Your task to perform on an android device: change the upload size in google photos Image 0: 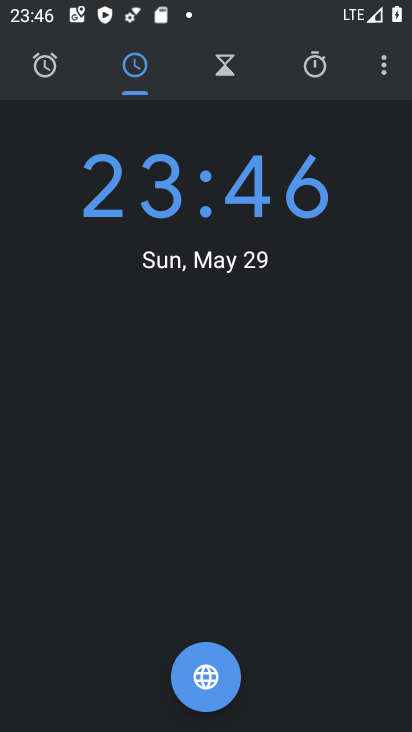
Step 0: press home button
Your task to perform on an android device: change the upload size in google photos Image 1: 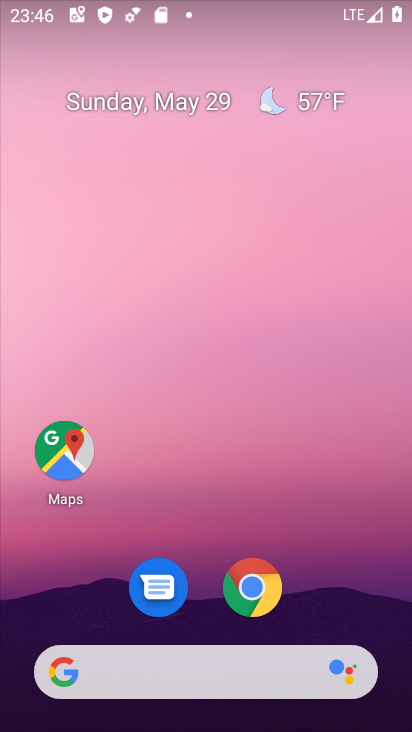
Step 1: drag from (342, 603) to (198, 174)
Your task to perform on an android device: change the upload size in google photos Image 2: 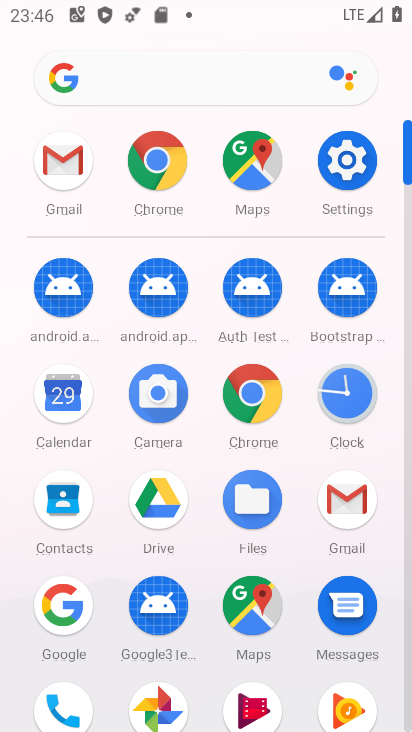
Step 2: click (160, 713)
Your task to perform on an android device: change the upload size in google photos Image 3: 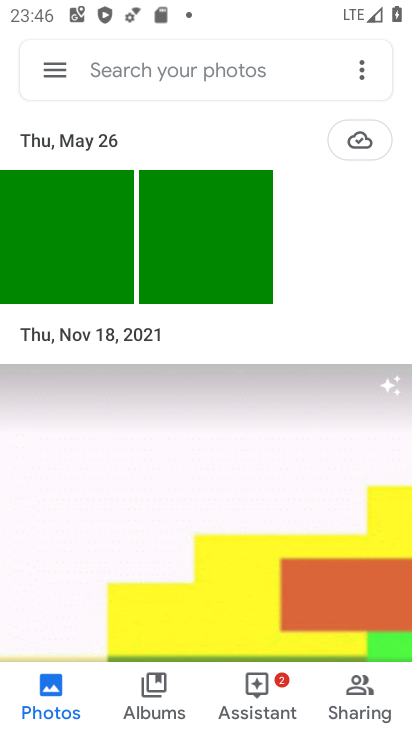
Step 3: click (52, 70)
Your task to perform on an android device: change the upload size in google photos Image 4: 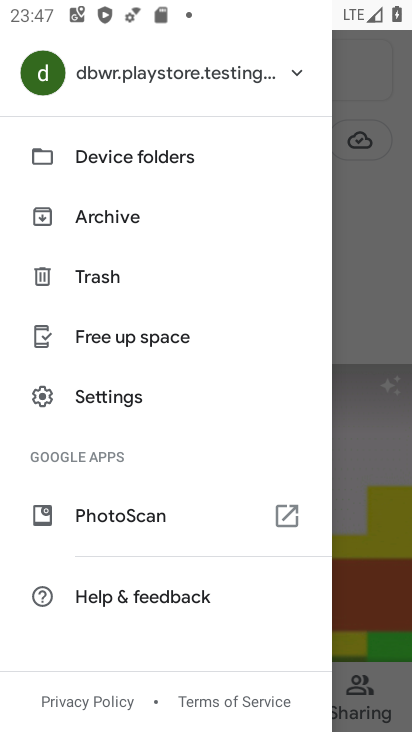
Step 4: click (102, 404)
Your task to perform on an android device: change the upload size in google photos Image 5: 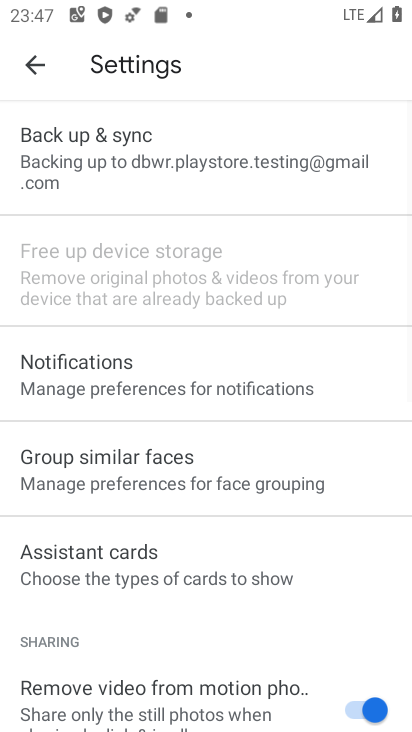
Step 5: click (116, 161)
Your task to perform on an android device: change the upload size in google photos Image 6: 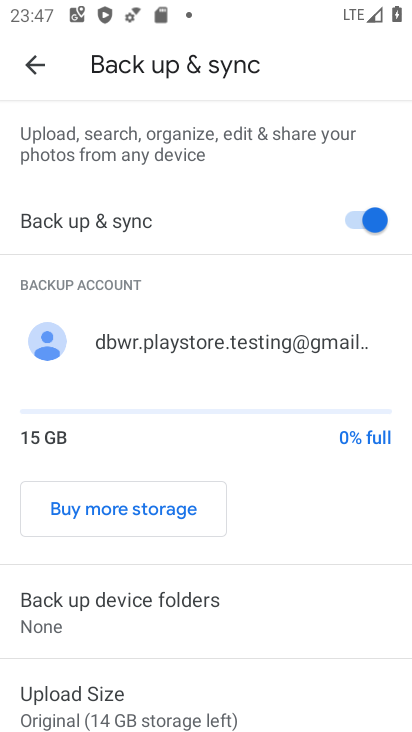
Step 6: click (216, 710)
Your task to perform on an android device: change the upload size in google photos Image 7: 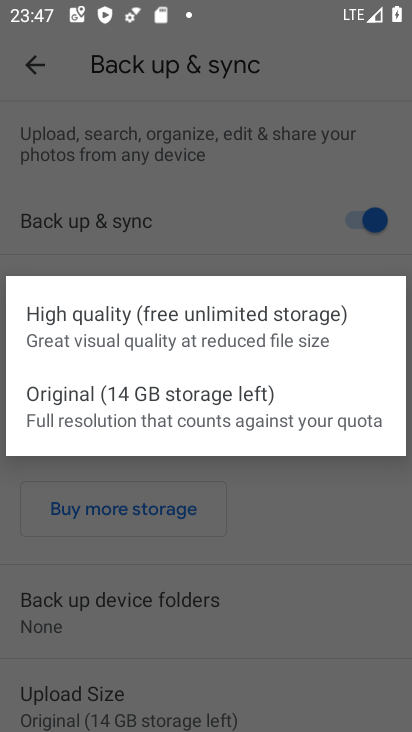
Step 7: click (225, 337)
Your task to perform on an android device: change the upload size in google photos Image 8: 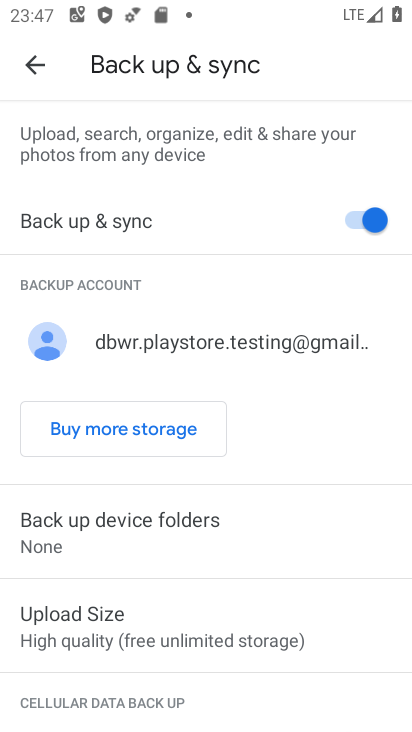
Step 8: task complete